Your task to perform on an android device: Empty the shopping cart on amazon.com. Add "panasonic triple a" to the cart on amazon.com, then select checkout. Image 0: 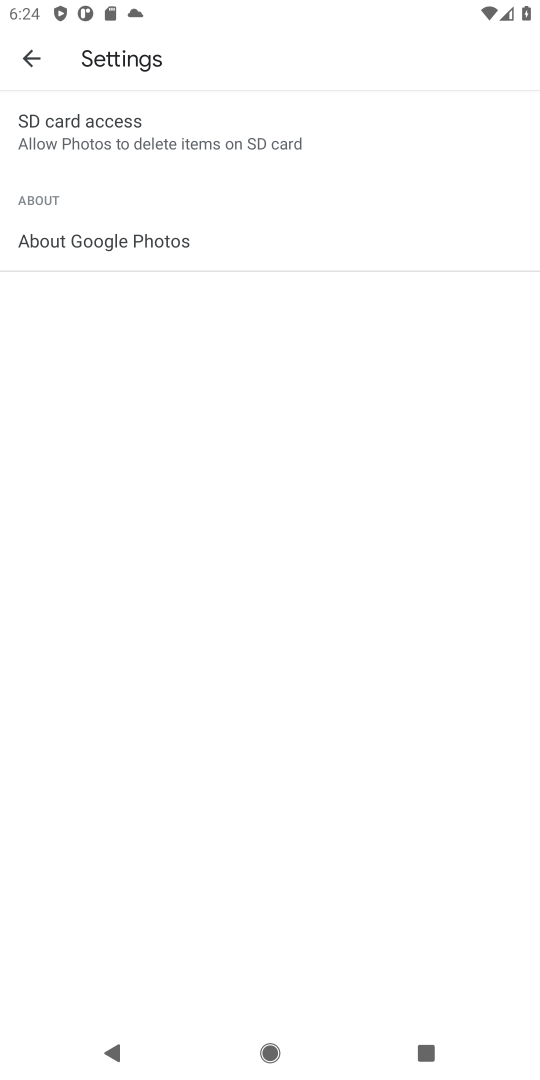
Step 0: press home button
Your task to perform on an android device: Empty the shopping cart on amazon.com. Add "panasonic triple a" to the cart on amazon.com, then select checkout. Image 1: 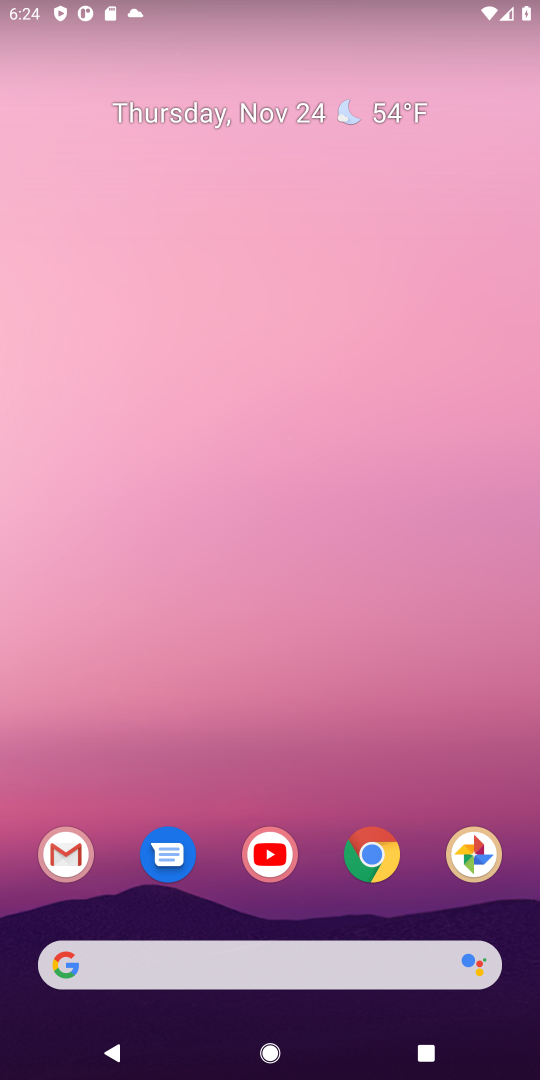
Step 1: click (373, 865)
Your task to perform on an android device: Empty the shopping cart on amazon.com. Add "panasonic triple a" to the cart on amazon.com, then select checkout. Image 2: 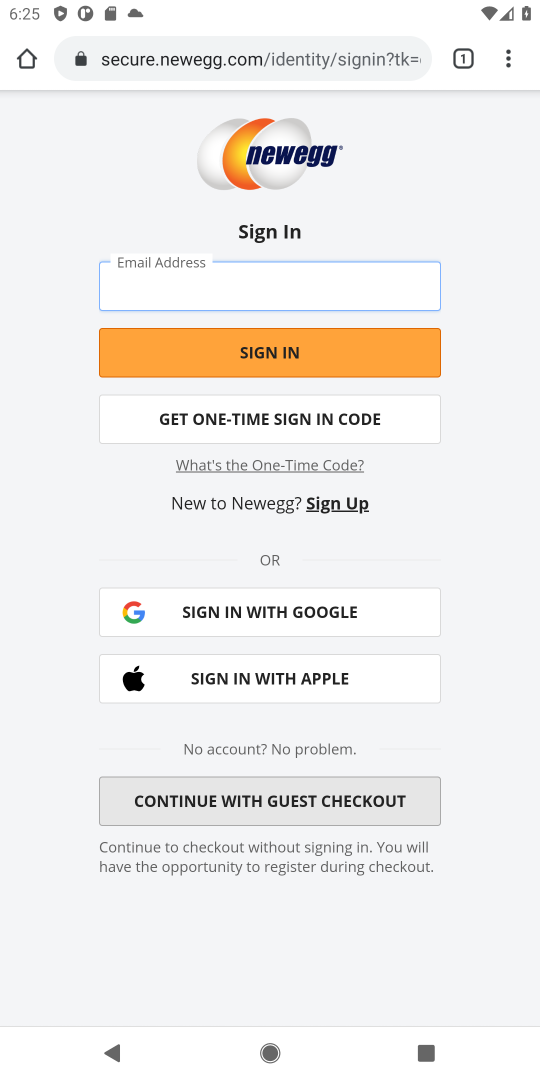
Step 2: click (229, 63)
Your task to perform on an android device: Empty the shopping cart on amazon.com. Add "panasonic triple a" to the cart on amazon.com, then select checkout. Image 3: 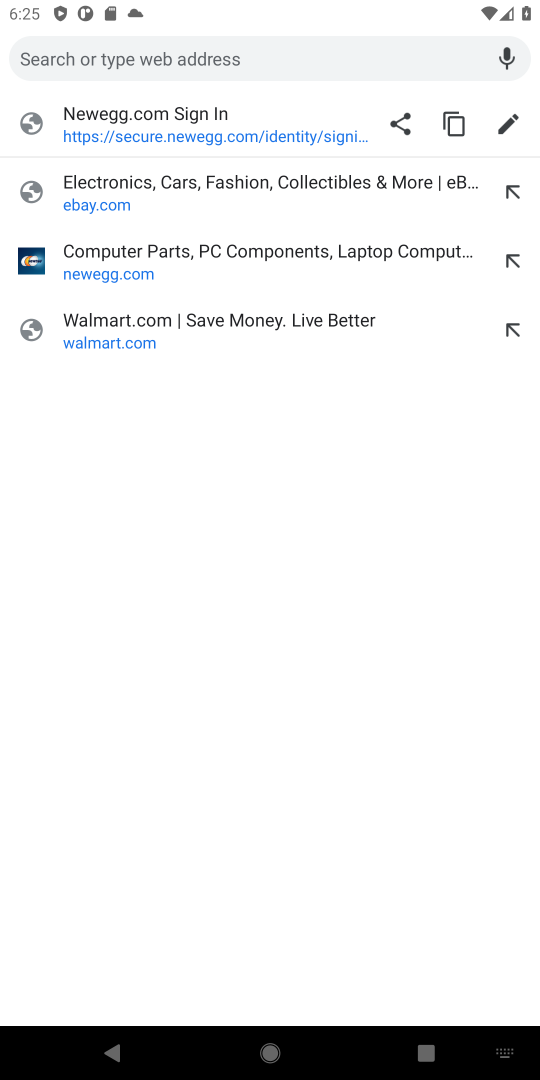
Step 3: type "amazon.com"
Your task to perform on an android device: Empty the shopping cart on amazon.com. Add "panasonic triple a" to the cart on amazon.com, then select checkout. Image 4: 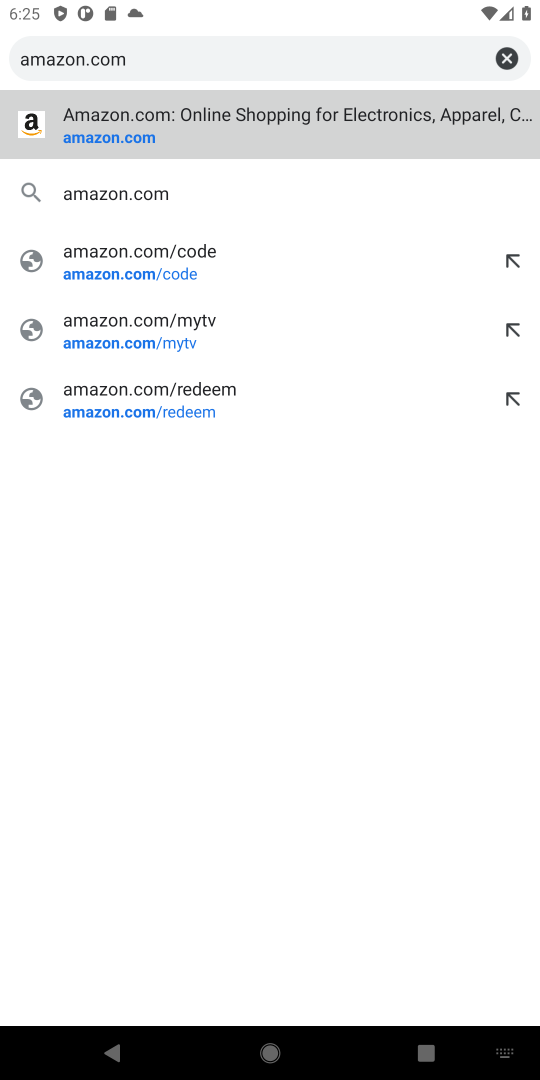
Step 4: click (90, 134)
Your task to perform on an android device: Empty the shopping cart on amazon.com. Add "panasonic triple a" to the cart on amazon.com, then select checkout. Image 5: 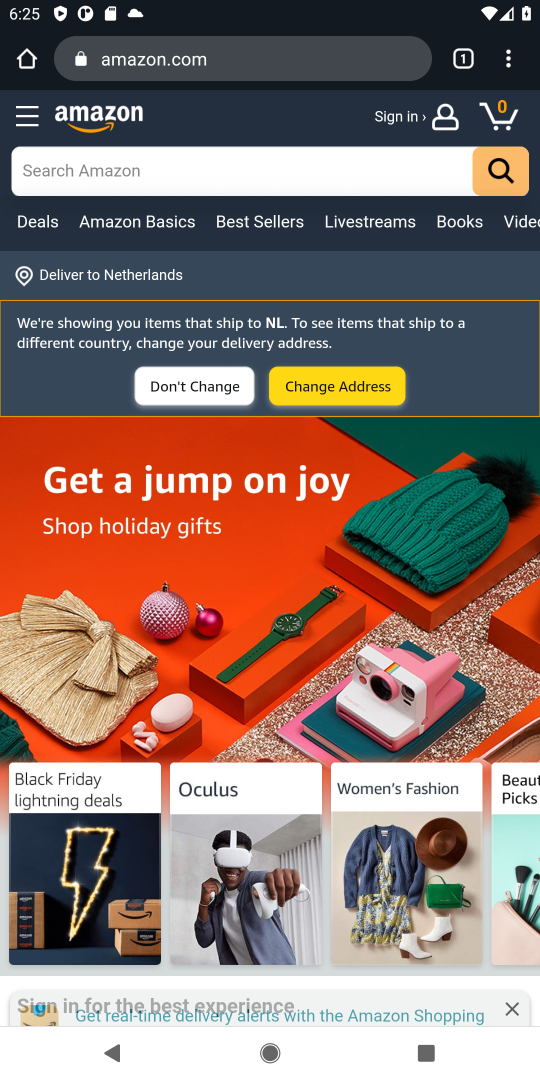
Step 5: click (495, 127)
Your task to perform on an android device: Empty the shopping cart on amazon.com. Add "panasonic triple a" to the cart on amazon.com, then select checkout. Image 6: 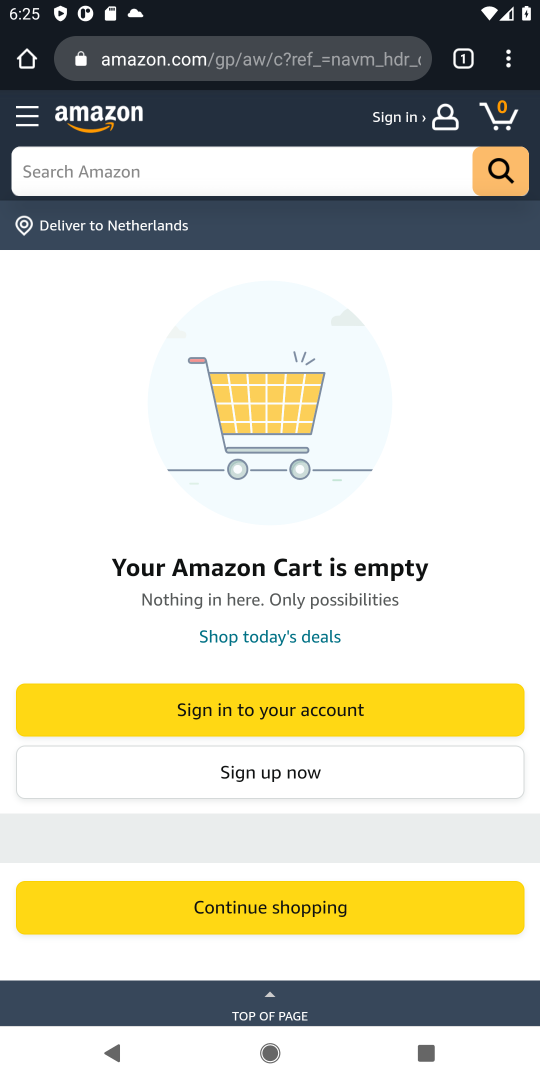
Step 6: click (120, 182)
Your task to perform on an android device: Empty the shopping cart on amazon.com. Add "panasonic triple a" to the cart on amazon.com, then select checkout. Image 7: 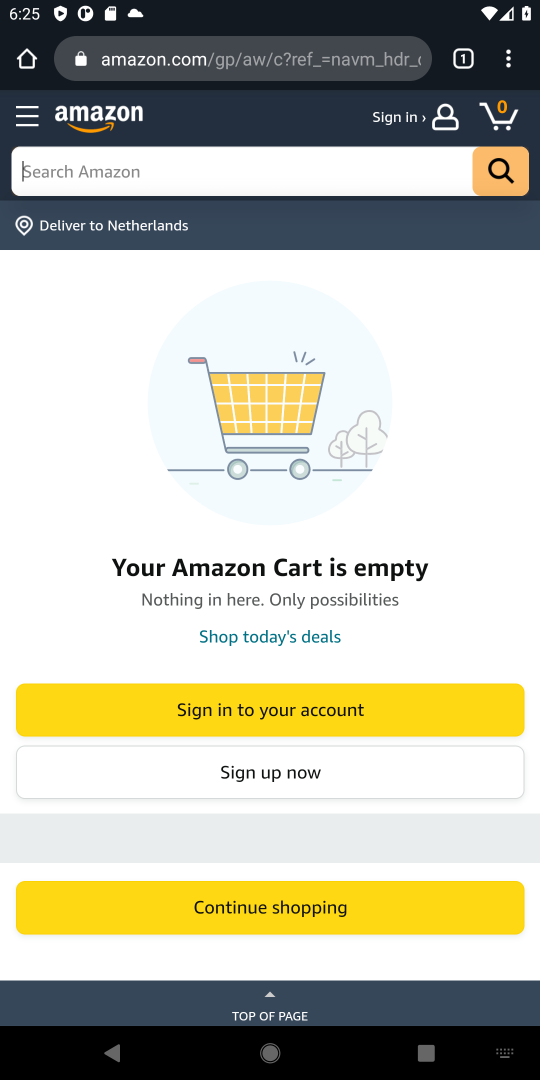
Step 7: type "panasonic triple a"
Your task to perform on an android device: Empty the shopping cart on amazon.com. Add "panasonic triple a" to the cart on amazon.com, then select checkout. Image 8: 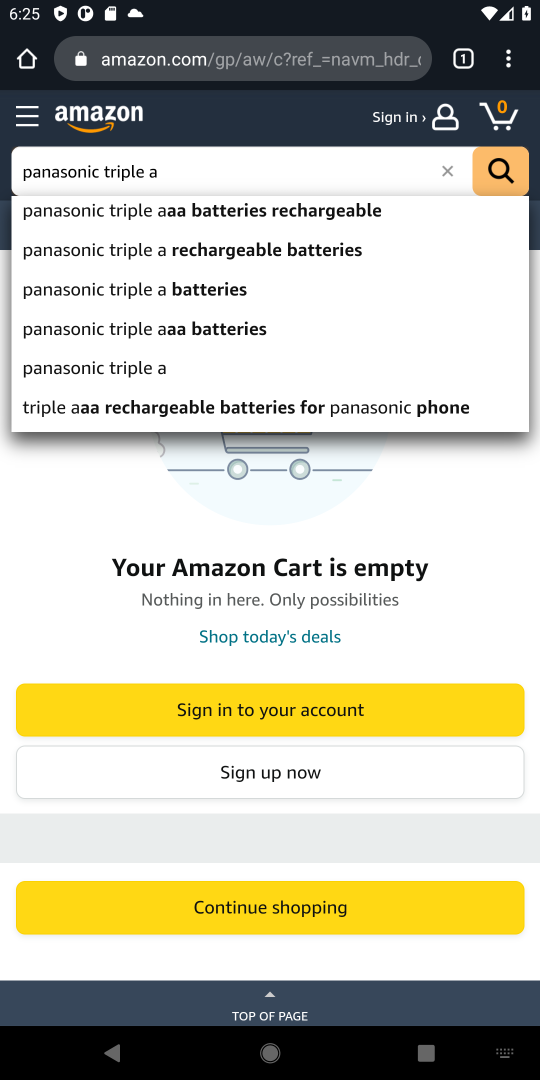
Step 8: click (112, 289)
Your task to perform on an android device: Empty the shopping cart on amazon.com. Add "panasonic triple a" to the cart on amazon.com, then select checkout. Image 9: 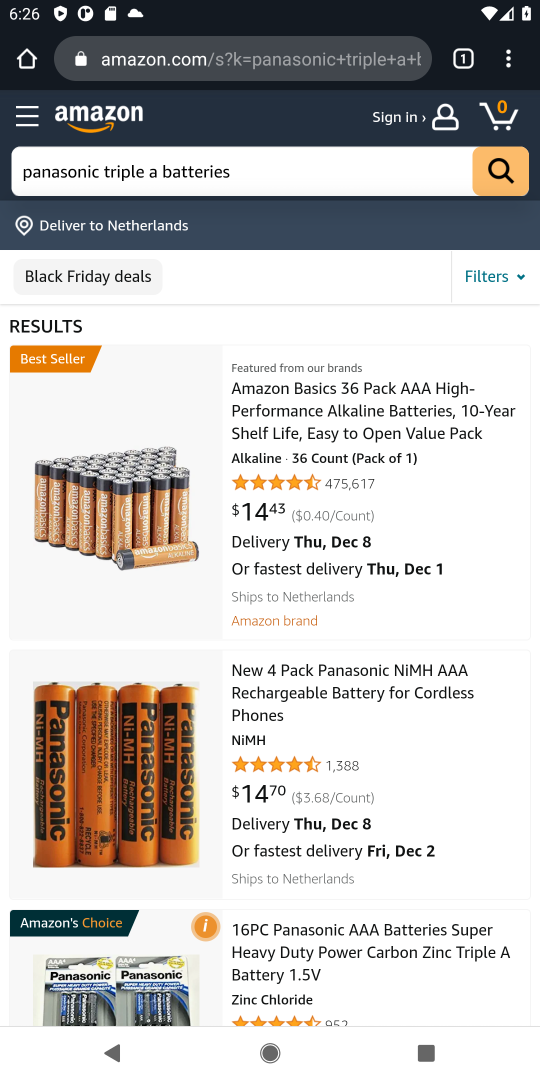
Step 9: click (113, 785)
Your task to perform on an android device: Empty the shopping cart on amazon.com. Add "panasonic triple a" to the cart on amazon.com, then select checkout. Image 10: 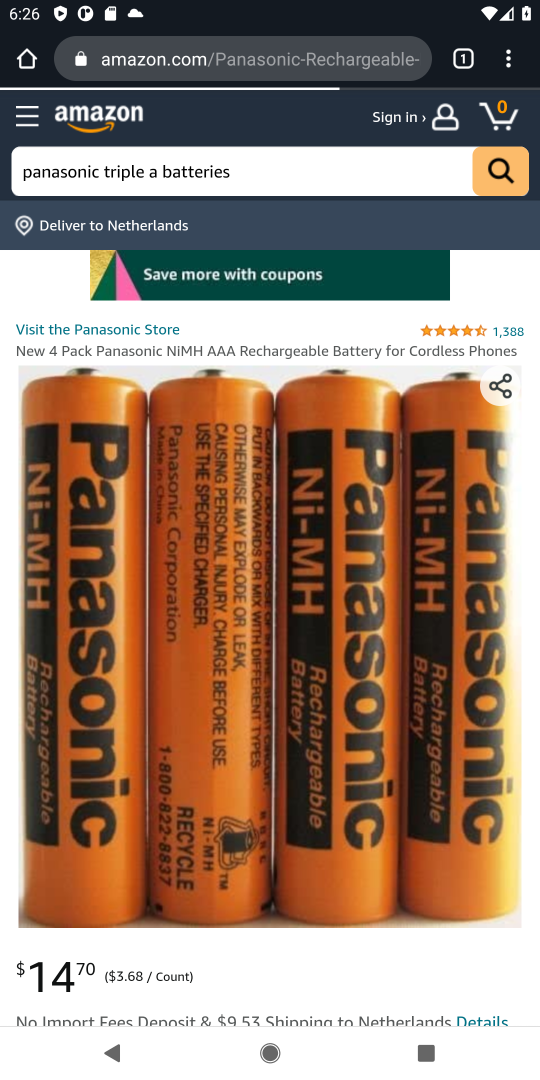
Step 10: drag from (153, 786) to (165, 459)
Your task to perform on an android device: Empty the shopping cart on amazon.com. Add "panasonic triple a" to the cart on amazon.com, then select checkout. Image 11: 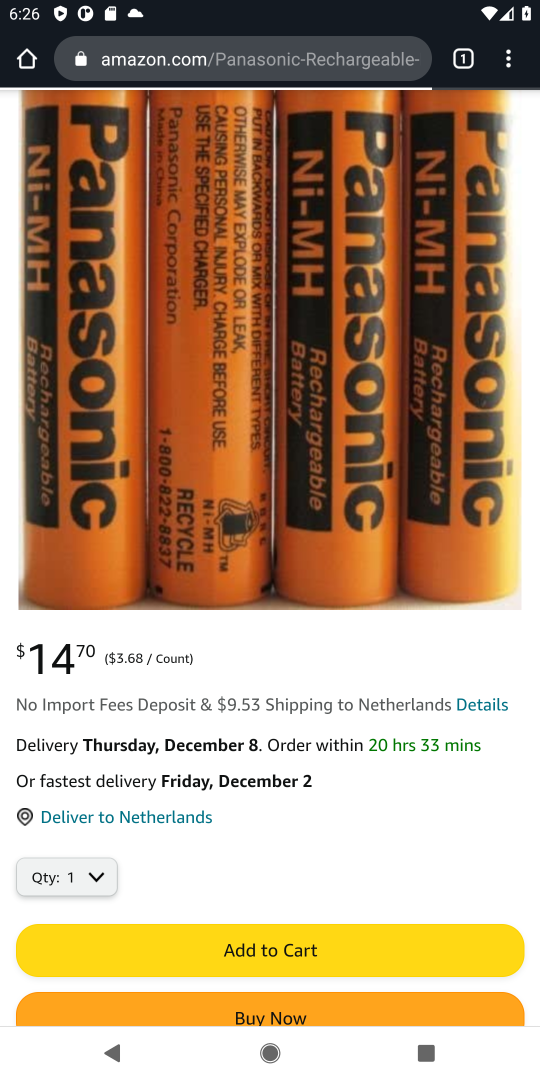
Step 11: drag from (283, 757) to (285, 510)
Your task to perform on an android device: Empty the shopping cart on amazon.com. Add "panasonic triple a" to the cart on amazon.com, then select checkout. Image 12: 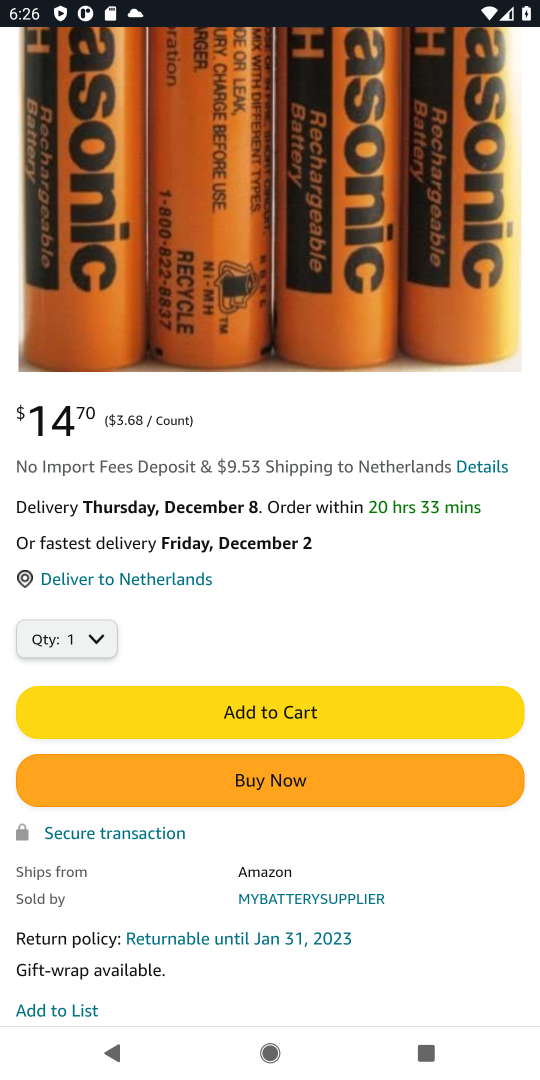
Step 12: click (242, 711)
Your task to perform on an android device: Empty the shopping cart on amazon.com. Add "panasonic triple a" to the cart on amazon.com, then select checkout. Image 13: 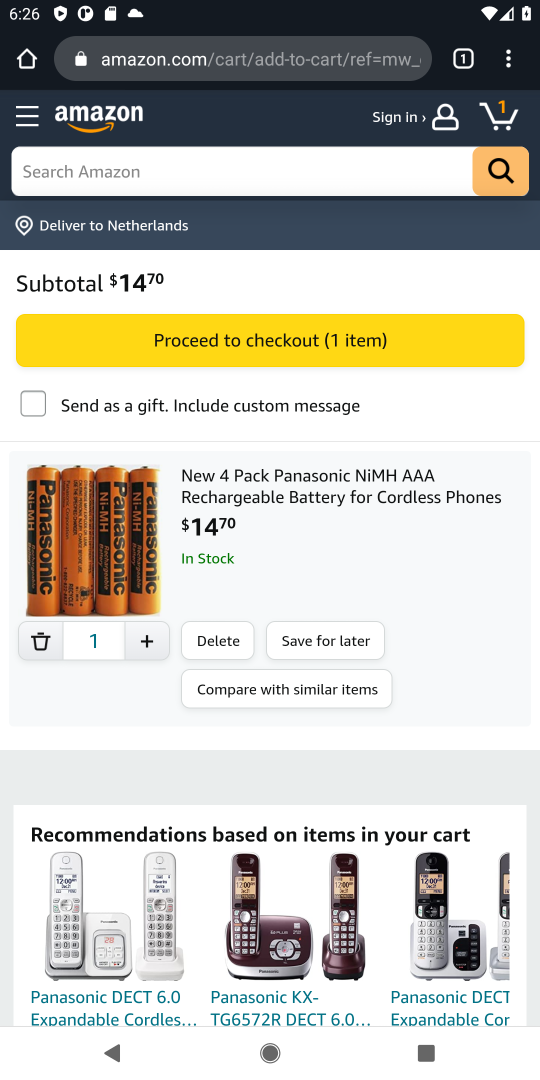
Step 13: click (217, 336)
Your task to perform on an android device: Empty the shopping cart on amazon.com. Add "panasonic triple a" to the cart on amazon.com, then select checkout. Image 14: 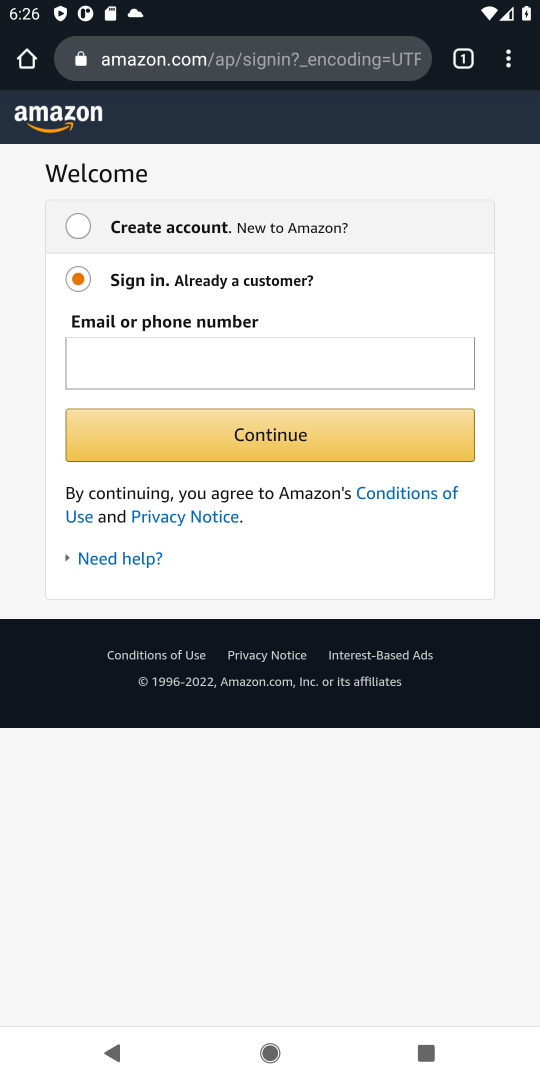
Step 14: task complete